Your task to perform on an android device: What's the weather today? Image 0: 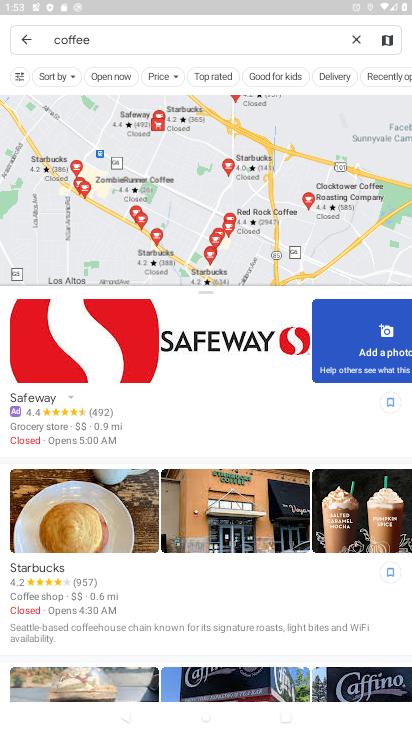
Step 0: press home button
Your task to perform on an android device: What's the weather today? Image 1: 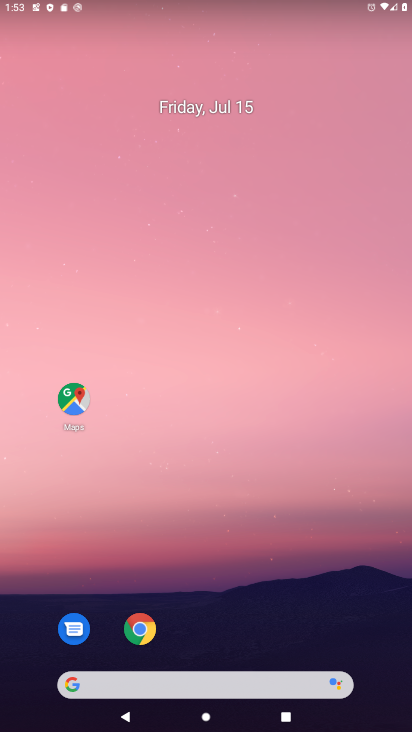
Step 1: drag from (337, 627) to (112, 58)
Your task to perform on an android device: What's the weather today? Image 2: 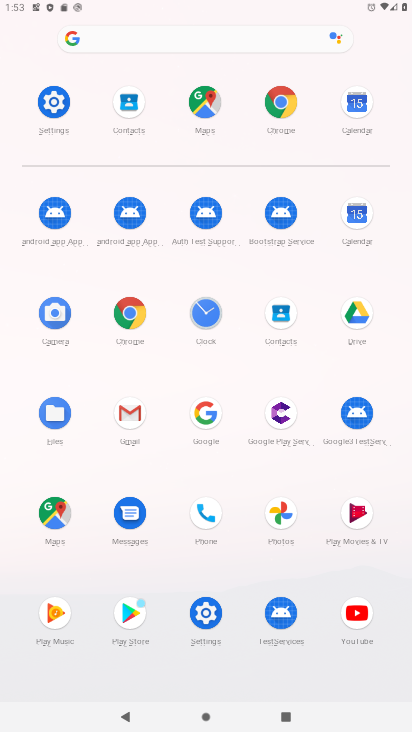
Step 2: click (280, 103)
Your task to perform on an android device: What's the weather today? Image 3: 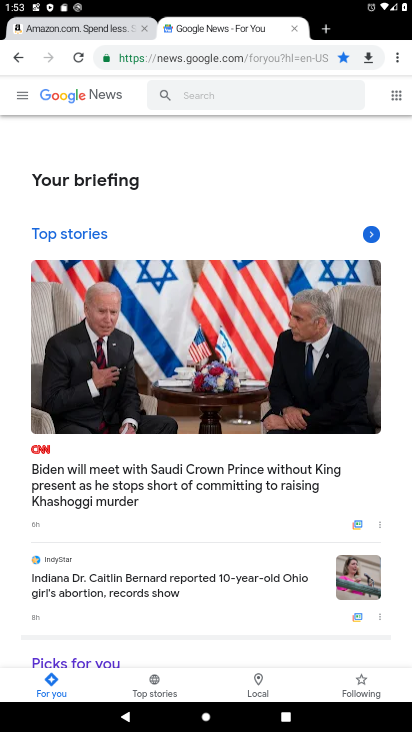
Step 3: click (281, 64)
Your task to perform on an android device: What's the weather today? Image 4: 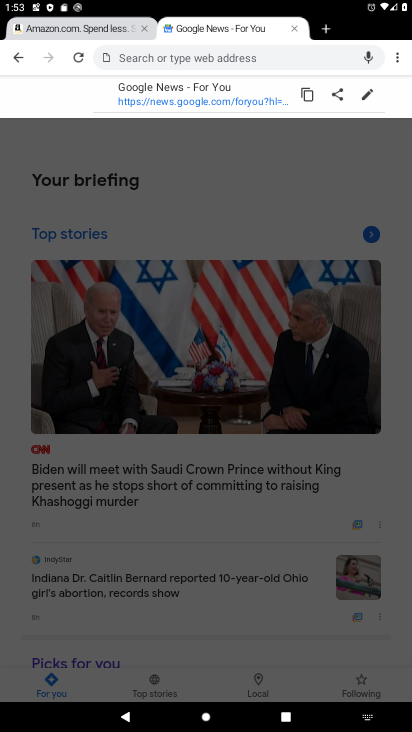
Step 4: type "weather"
Your task to perform on an android device: What's the weather today? Image 5: 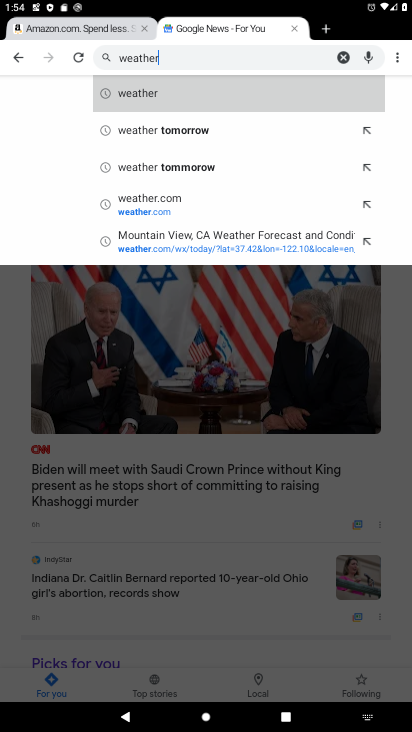
Step 5: click (142, 94)
Your task to perform on an android device: What's the weather today? Image 6: 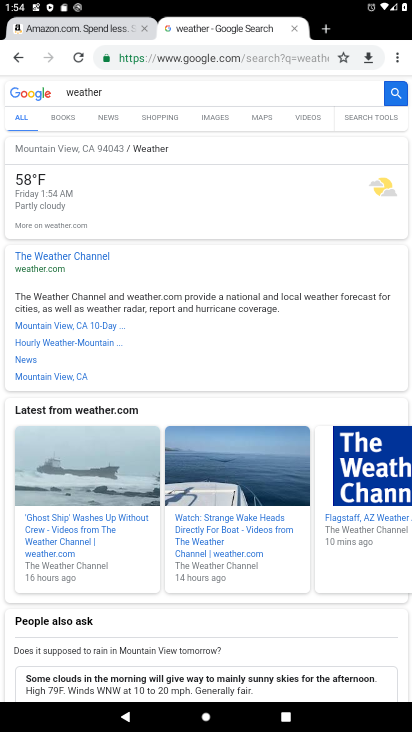
Step 6: task complete